Your task to perform on an android device: Open the Play Movies app and select the watchlist tab. Image 0: 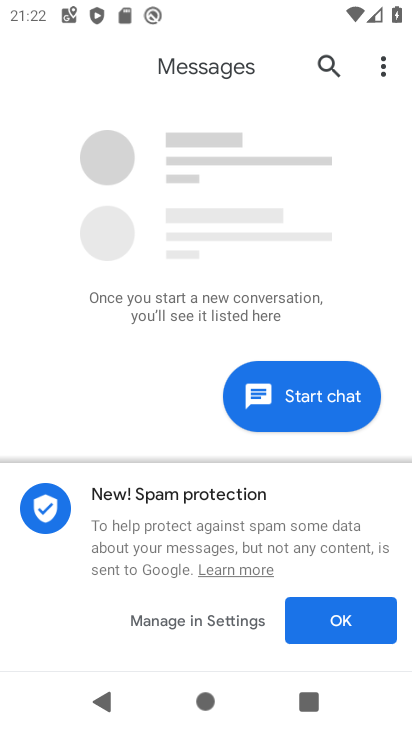
Step 0: press home button
Your task to perform on an android device: Open the Play Movies app and select the watchlist tab. Image 1: 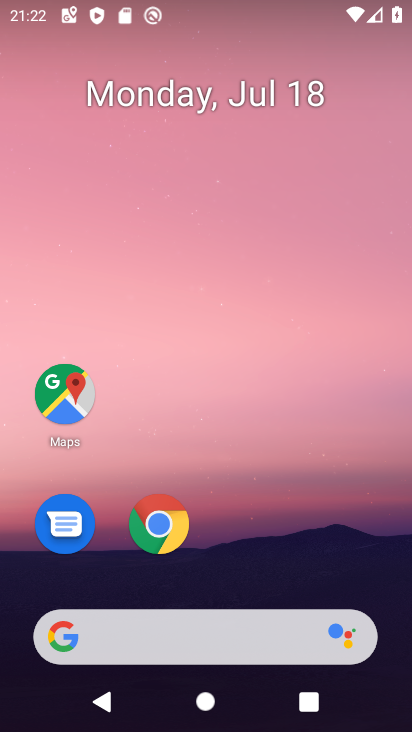
Step 1: drag from (246, 545) to (320, 39)
Your task to perform on an android device: Open the Play Movies app and select the watchlist tab. Image 2: 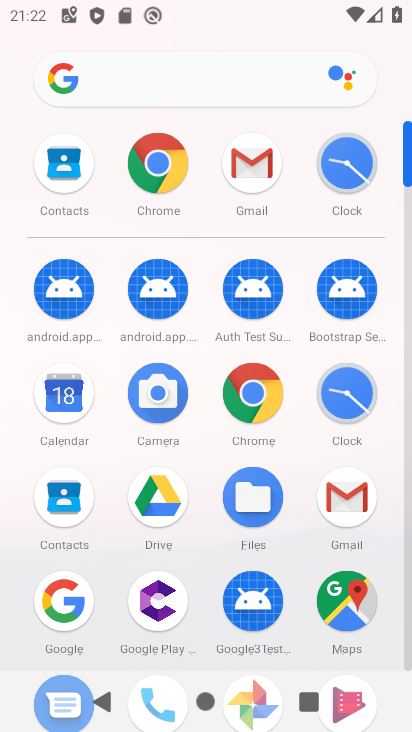
Step 2: drag from (204, 450) to (210, 69)
Your task to perform on an android device: Open the Play Movies app and select the watchlist tab. Image 3: 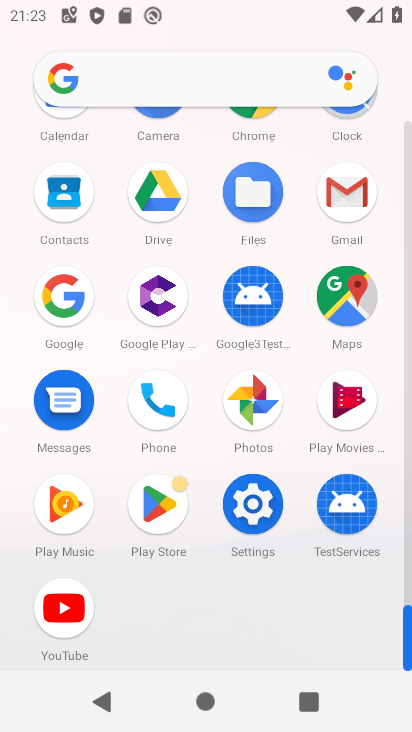
Step 3: click (348, 395)
Your task to perform on an android device: Open the Play Movies app and select the watchlist tab. Image 4: 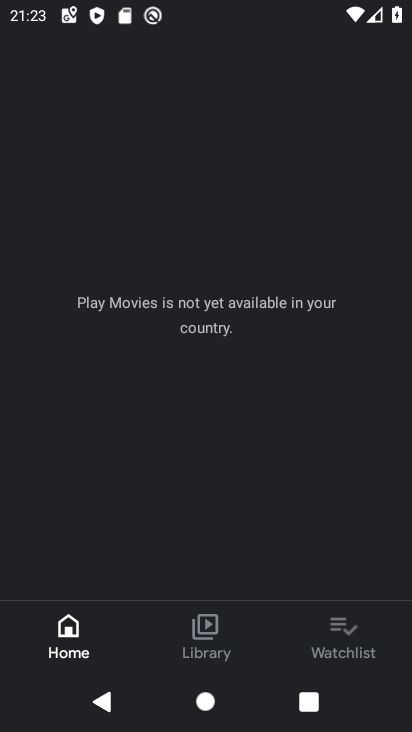
Step 4: click (344, 640)
Your task to perform on an android device: Open the Play Movies app and select the watchlist tab. Image 5: 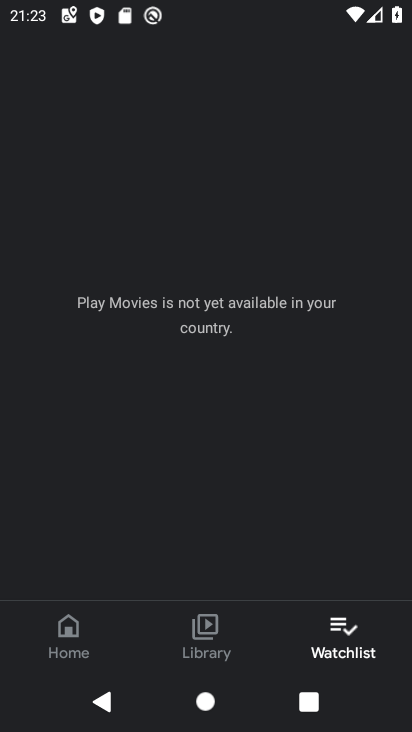
Step 5: task complete